Your task to perform on an android device: turn off picture-in-picture Image 0: 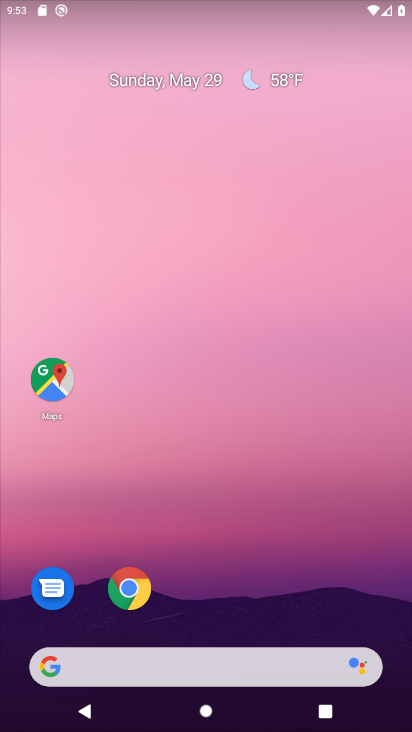
Step 0: drag from (261, 698) to (194, 189)
Your task to perform on an android device: turn off picture-in-picture Image 1: 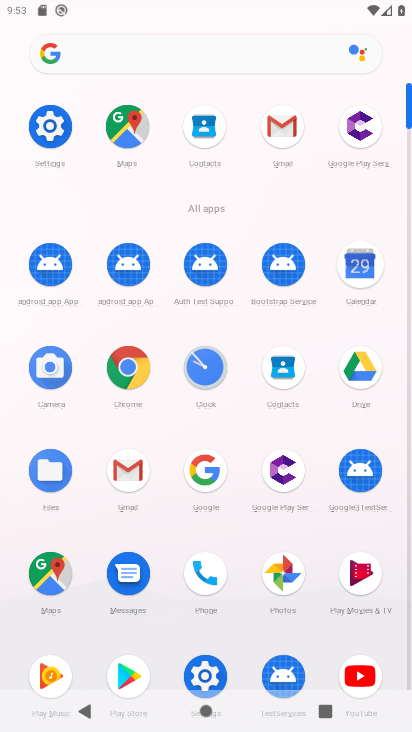
Step 1: click (126, 369)
Your task to perform on an android device: turn off picture-in-picture Image 2: 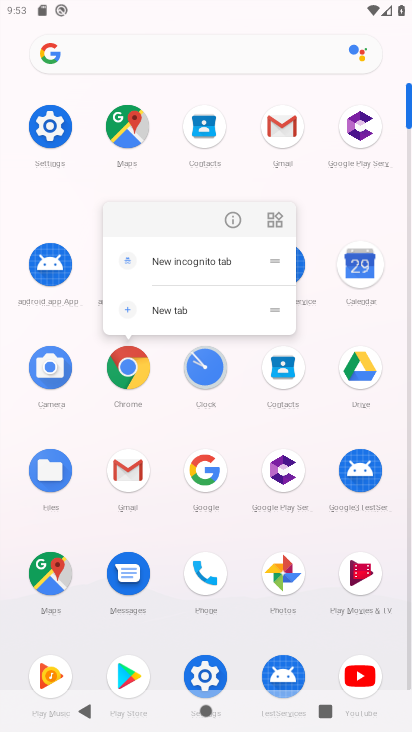
Step 2: click (222, 230)
Your task to perform on an android device: turn off picture-in-picture Image 3: 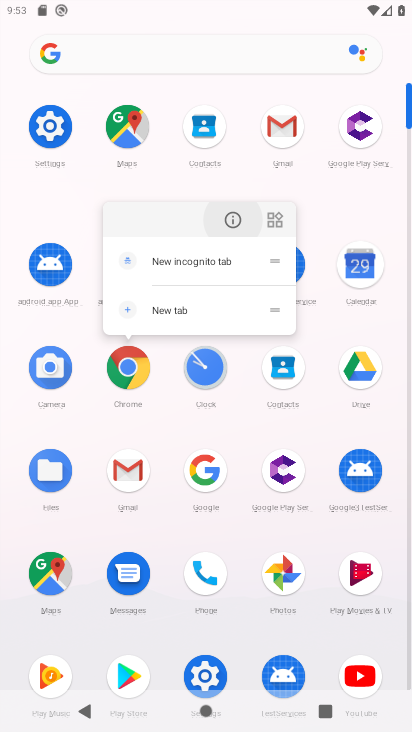
Step 3: click (222, 230)
Your task to perform on an android device: turn off picture-in-picture Image 4: 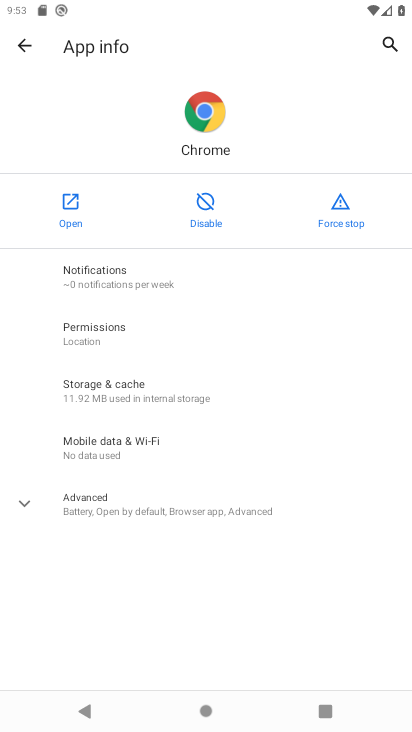
Step 4: click (85, 499)
Your task to perform on an android device: turn off picture-in-picture Image 5: 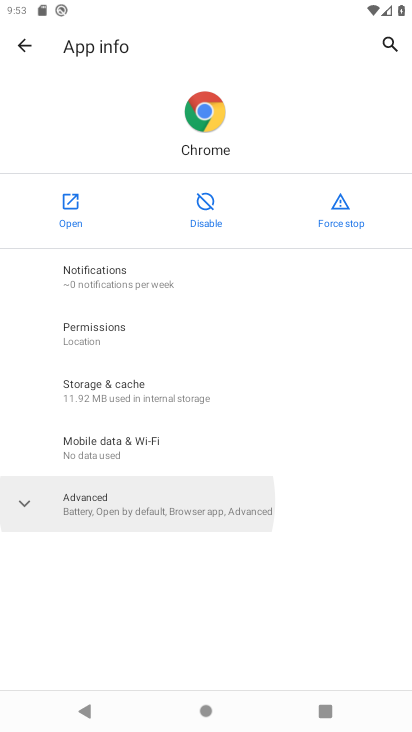
Step 5: click (89, 498)
Your task to perform on an android device: turn off picture-in-picture Image 6: 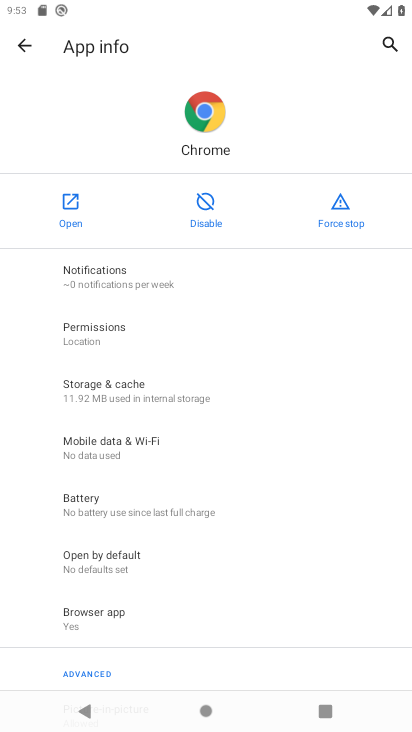
Step 6: drag from (98, 522) to (86, 367)
Your task to perform on an android device: turn off picture-in-picture Image 7: 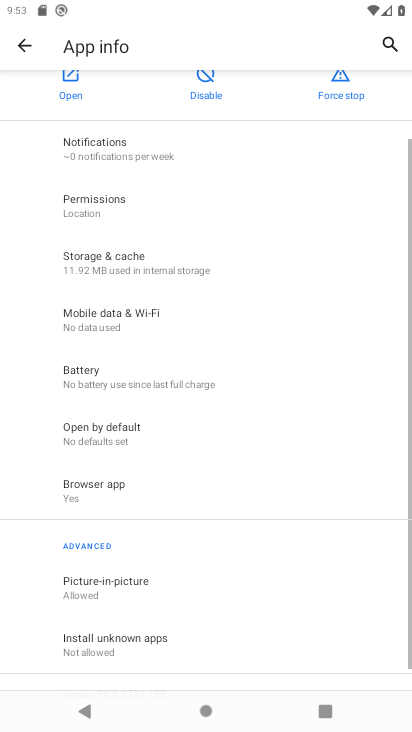
Step 7: drag from (116, 499) to (88, 306)
Your task to perform on an android device: turn off picture-in-picture Image 8: 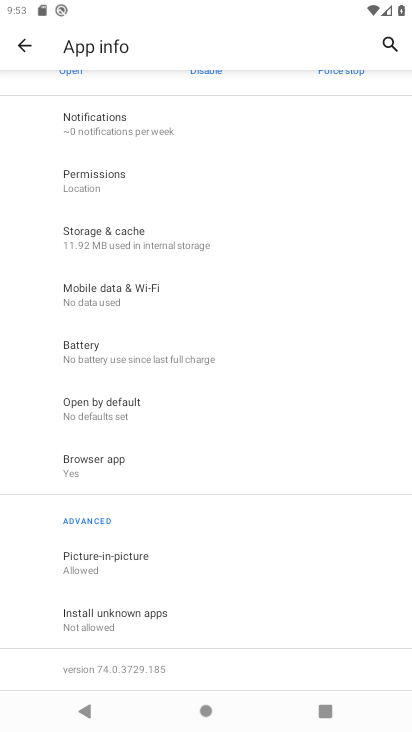
Step 8: click (83, 552)
Your task to perform on an android device: turn off picture-in-picture Image 9: 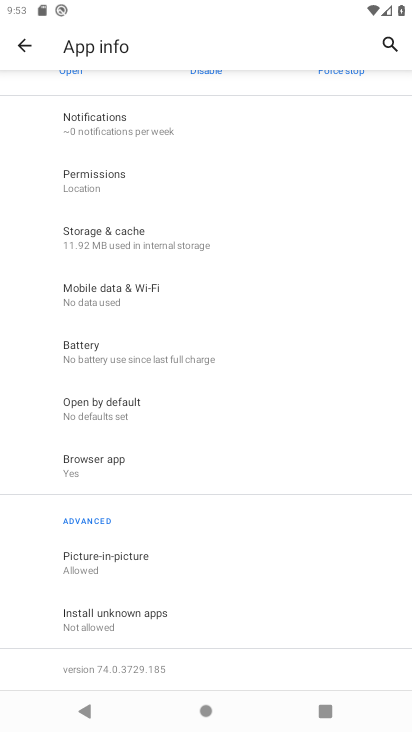
Step 9: click (83, 552)
Your task to perform on an android device: turn off picture-in-picture Image 10: 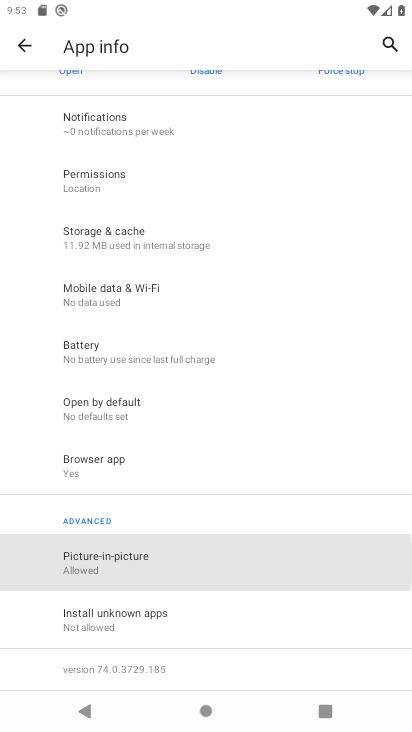
Step 10: click (83, 552)
Your task to perform on an android device: turn off picture-in-picture Image 11: 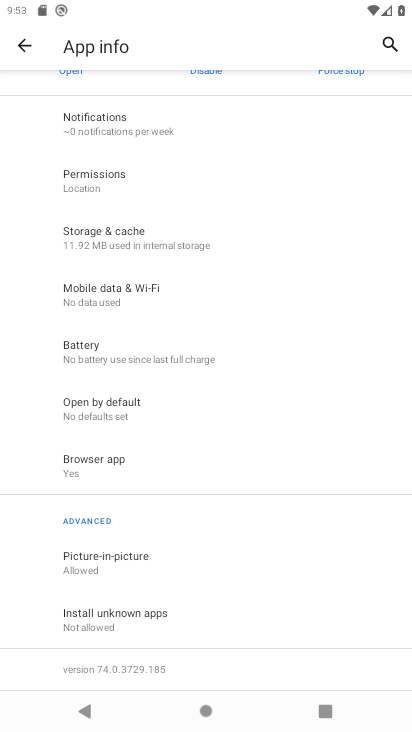
Step 11: click (83, 553)
Your task to perform on an android device: turn off picture-in-picture Image 12: 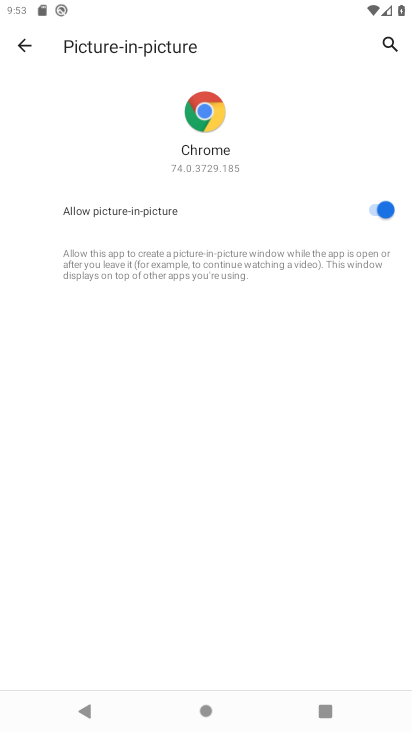
Step 12: click (385, 212)
Your task to perform on an android device: turn off picture-in-picture Image 13: 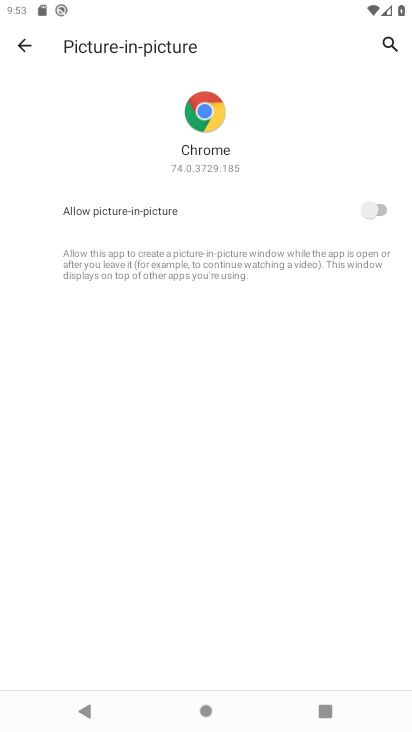
Step 13: task complete